Your task to perform on an android device: set the timer Image 0: 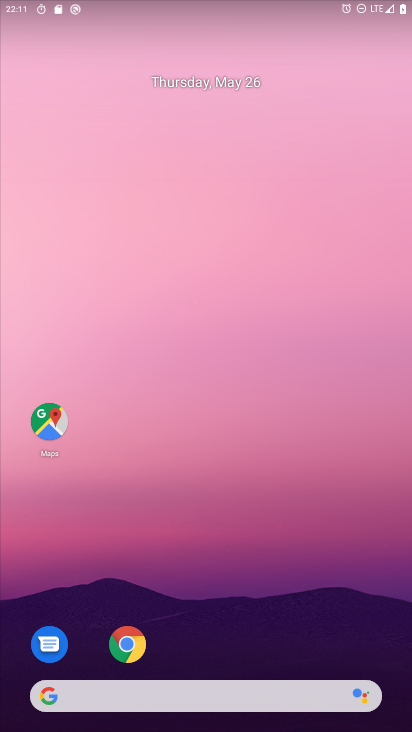
Step 0: drag from (194, 664) to (237, 162)
Your task to perform on an android device: set the timer Image 1: 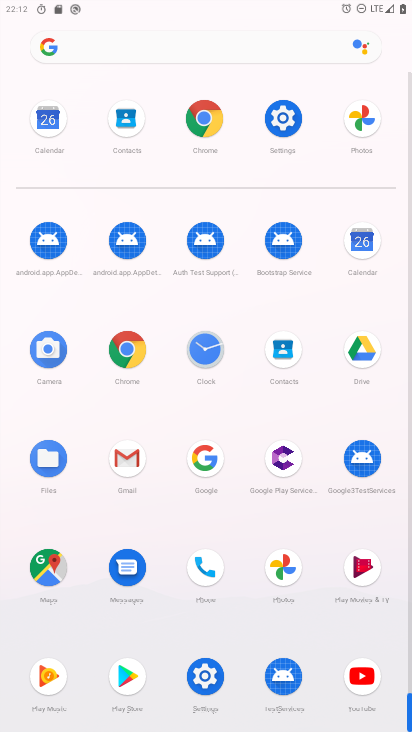
Step 1: click (207, 347)
Your task to perform on an android device: set the timer Image 2: 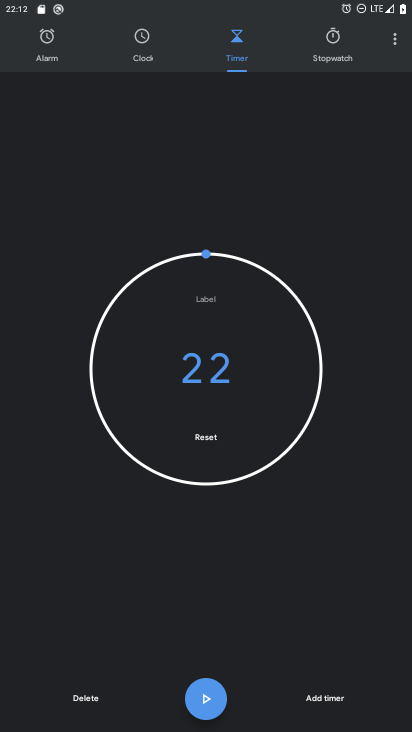
Step 2: click (237, 46)
Your task to perform on an android device: set the timer Image 3: 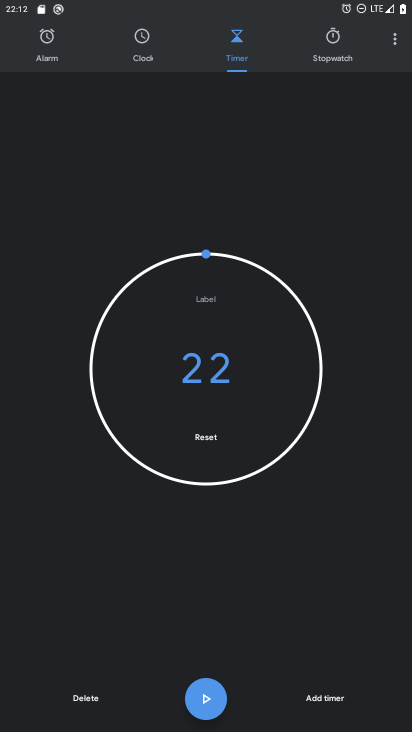
Step 3: click (253, 54)
Your task to perform on an android device: set the timer Image 4: 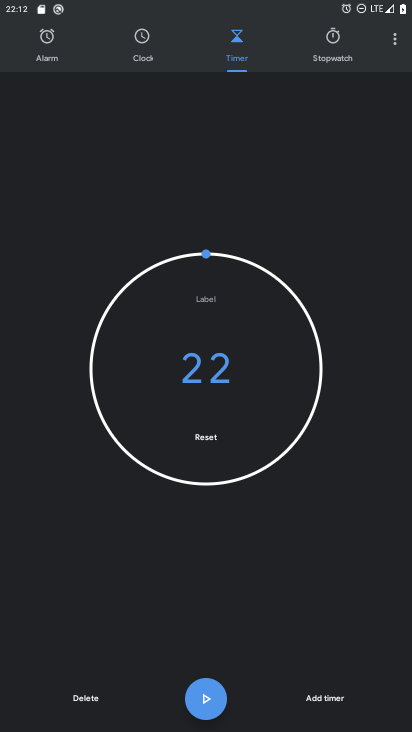
Step 4: click (86, 700)
Your task to perform on an android device: set the timer Image 5: 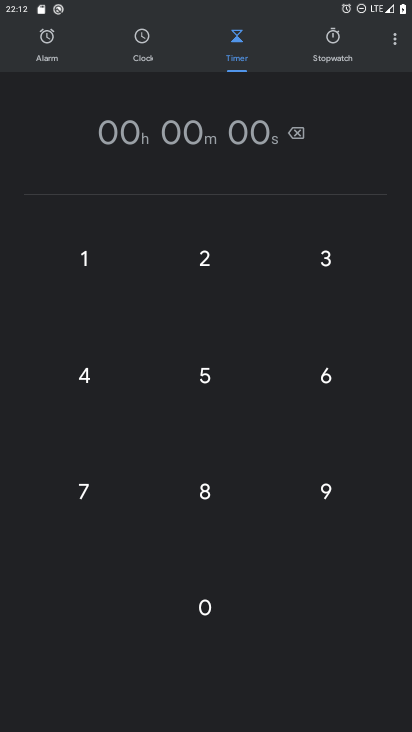
Step 5: click (204, 374)
Your task to perform on an android device: set the timer Image 6: 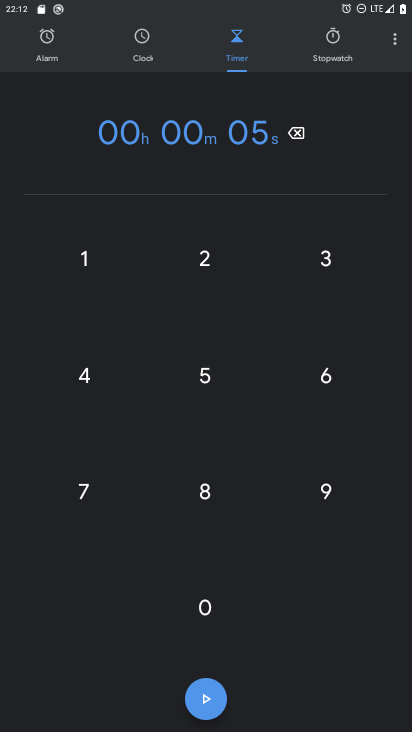
Step 6: click (331, 391)
Your task to perform on an android device: set the timer Image 7: 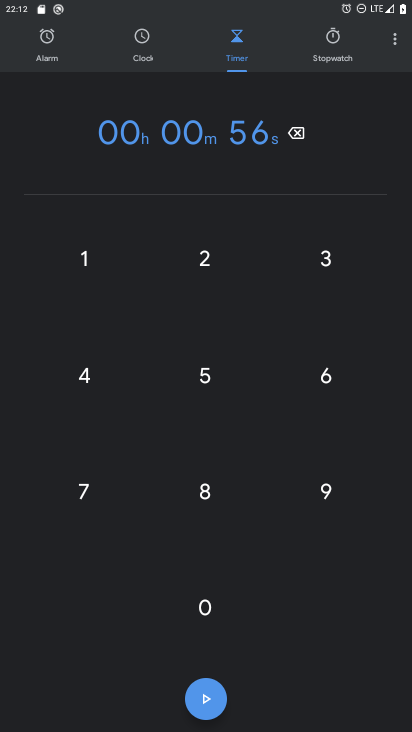
Step 7: click (207, 694)
Your task to perform on an android device: set the timer Image 8: 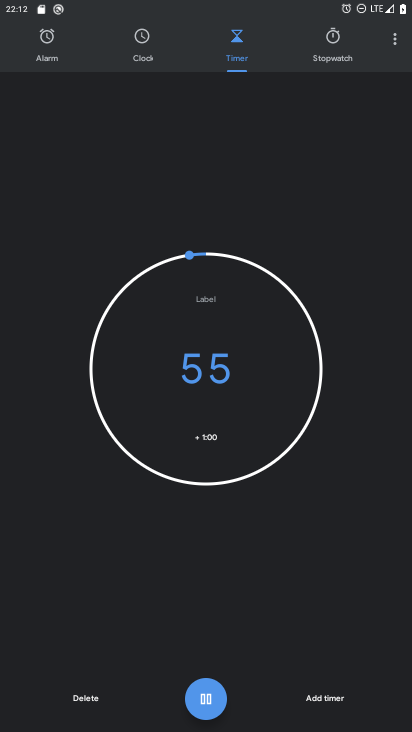
Step 8: task complete